Your task to perform on an android device: open chrome and create a bookmark for the current page Image 0: 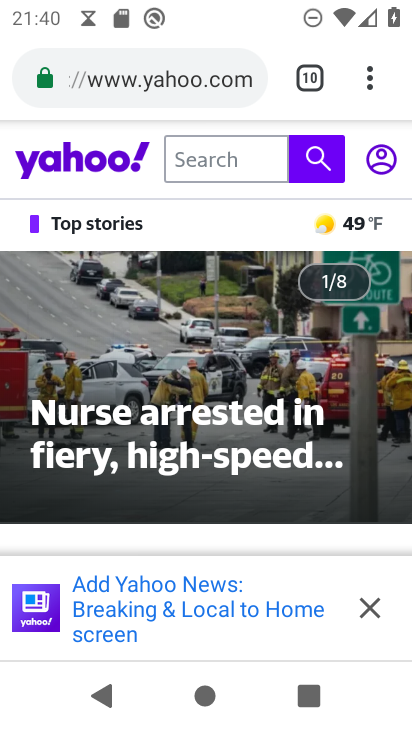
Step 0: press home button
Your task to perform on an android device: open chrome and create a bookmark for the current page Image 1: 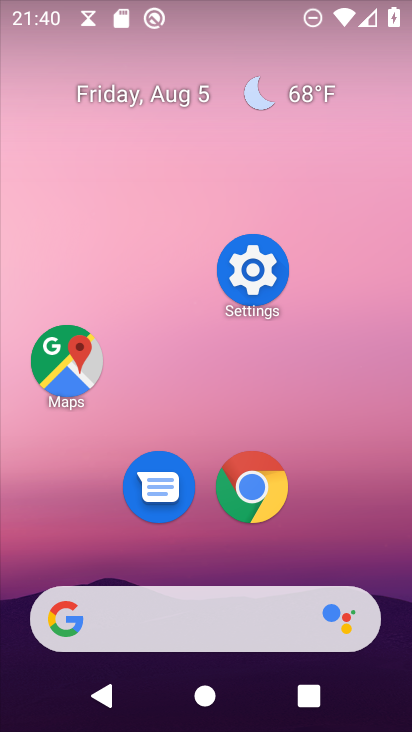
Step 1: click (253, 496)
Your task to perform on an android device: open chrome and create a bookmark for the current page Image 2: 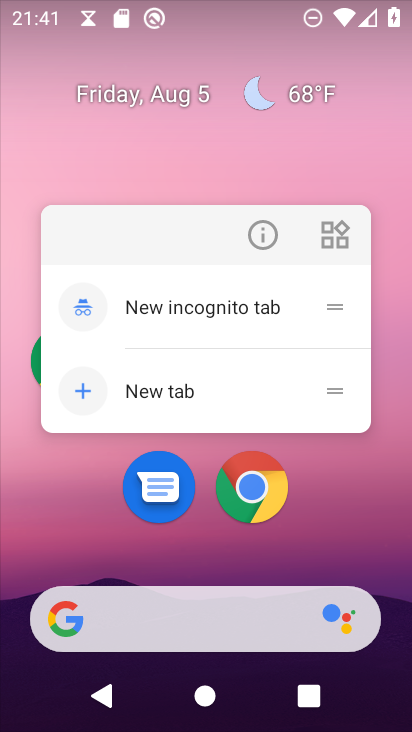
Step 2: click (253, 487)
Your task to perform on an android device: open chrome and create a bookmark for the current page Image 3: 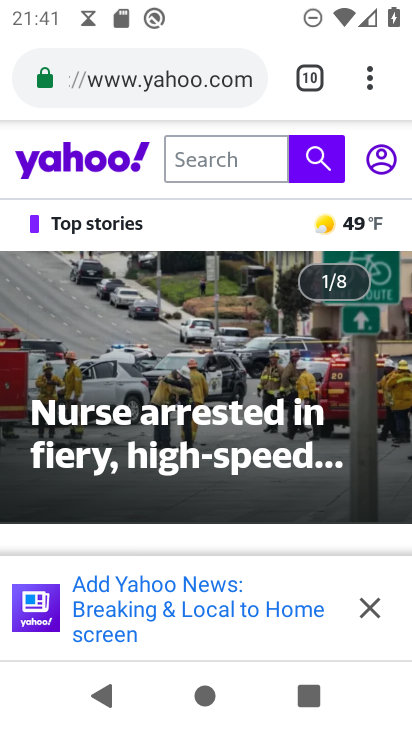
Step 3: click (373, 96)
Your task to perform on an android device: open chrome and create a bookmark for the current page Image 4: 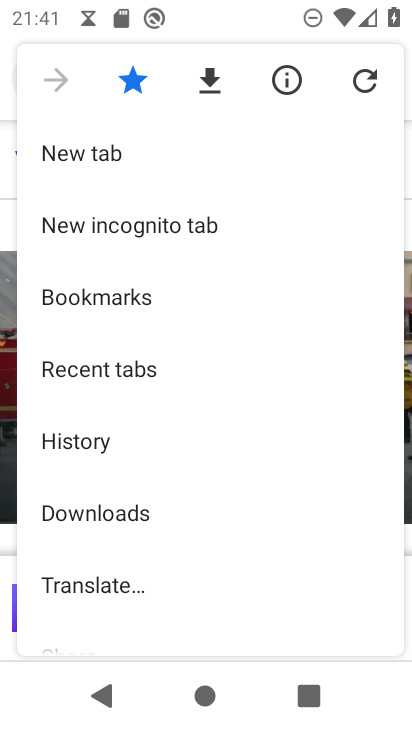
Step 4: task complete